Your task to perform on an android device: Open location settings Image 0: 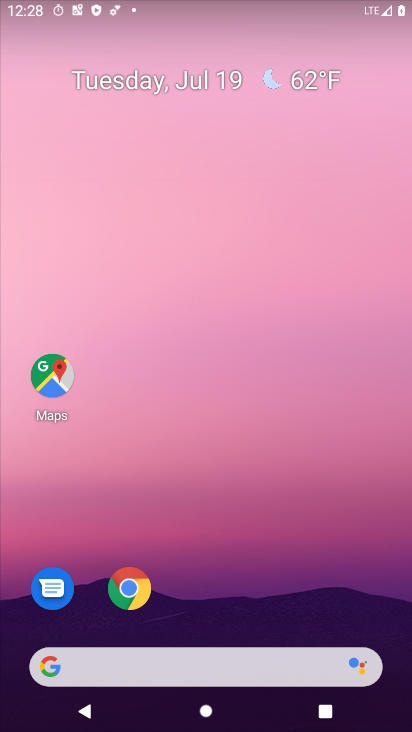
Step 0: drag from (267, 356) to (271, 129)
Your task to perform on an android device: Open location settings Image 1: 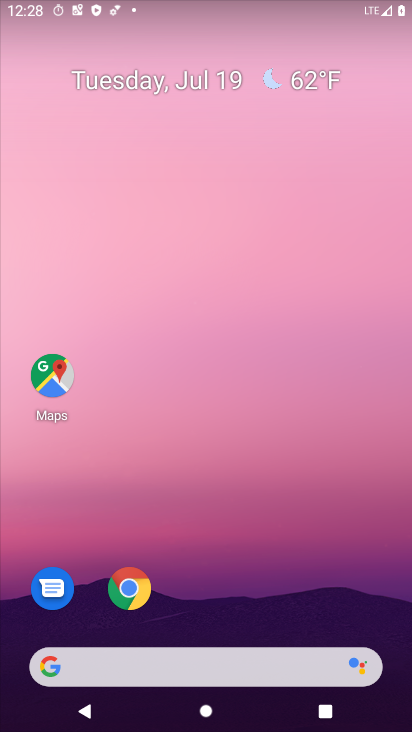
Step 1: drag from (273, 575) to (158, 4)
Your task to perform on an android device: Open location settings Image 2: 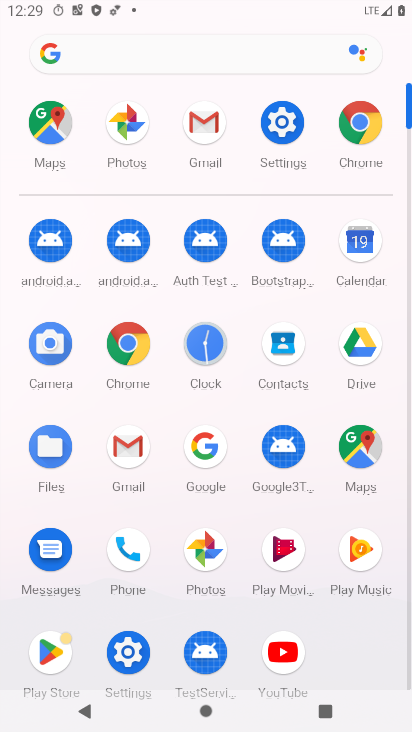
Step 2: click (293, 112)
Your task to perform on an android device: Open location settings Image 3: 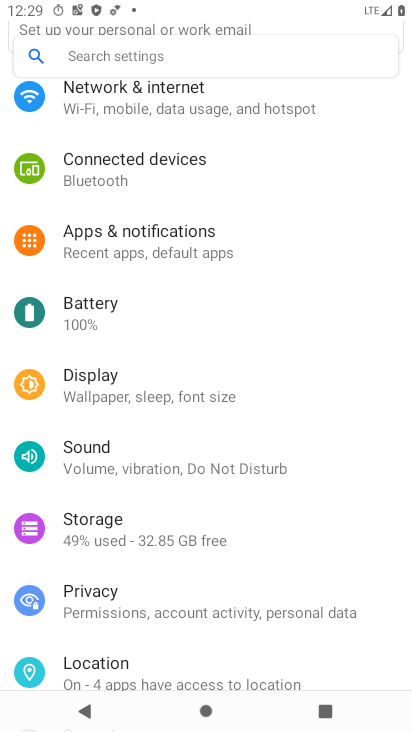
Step 3: click (152, 660)
Your task to perform on an android device: Open location settings Image 4: 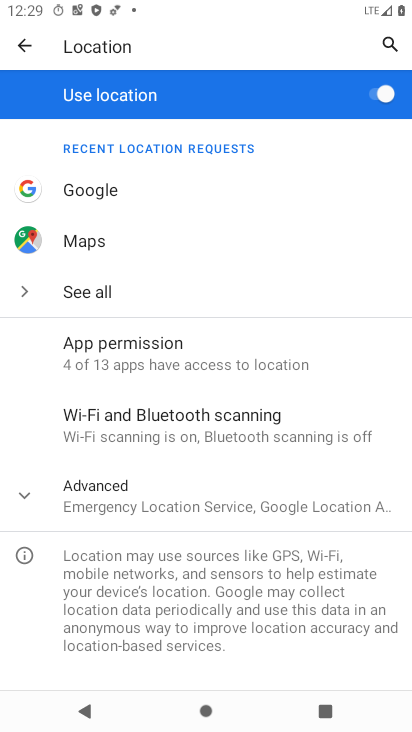
Step 4: task complete